Your task to perform on an android device: clear all cookies in the chrome app Image 0: 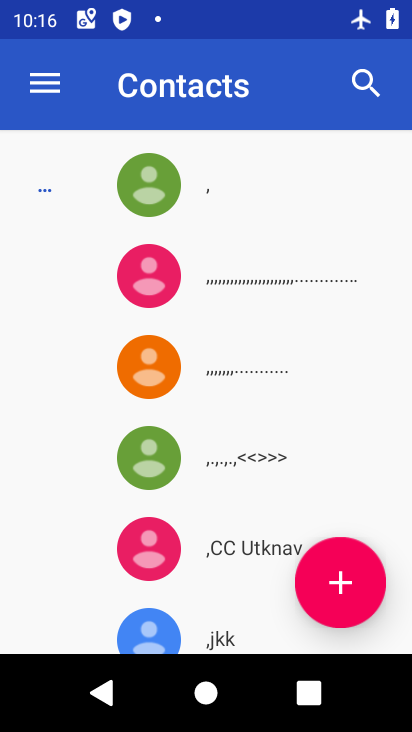
Step 0: press home button
Your task to perform on an android device: clear all cookies in the chrome app Image 1: 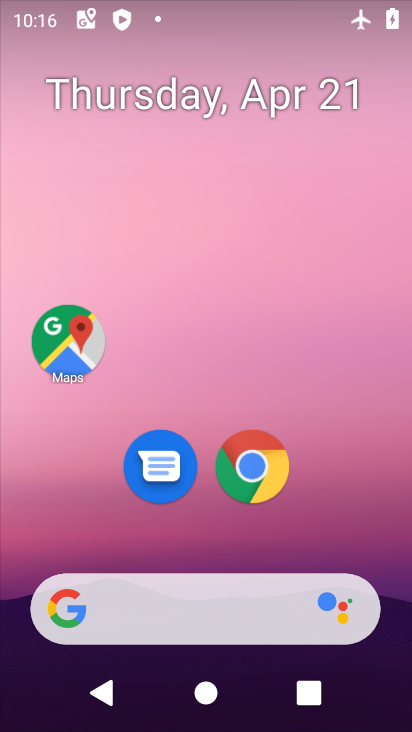
Step 1: drag from (326, 497) to (348, 76)
Your task to perform on an android device: clear all cookies in the chrome app Image 2: 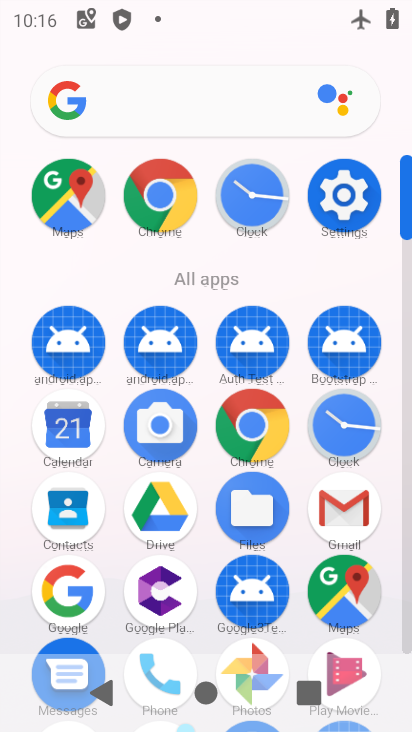
Step 2: click (262, 445)
Your task to perform on an android device: clear all cookies in the chrome app Image 3: 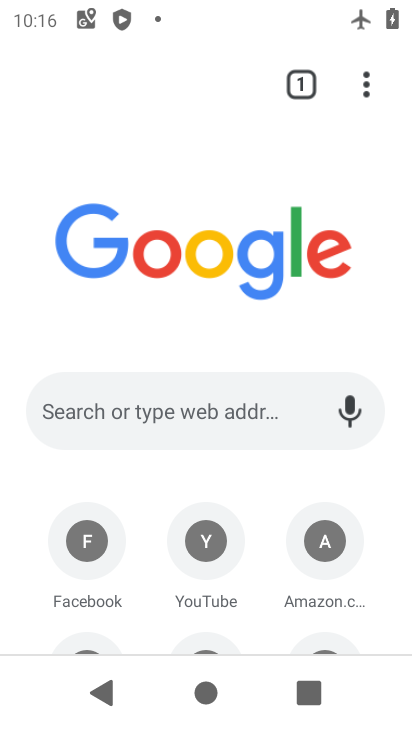
Step 3: task complete